Your task to perform on an android device: visit the assistant section in the google photos Image 0: 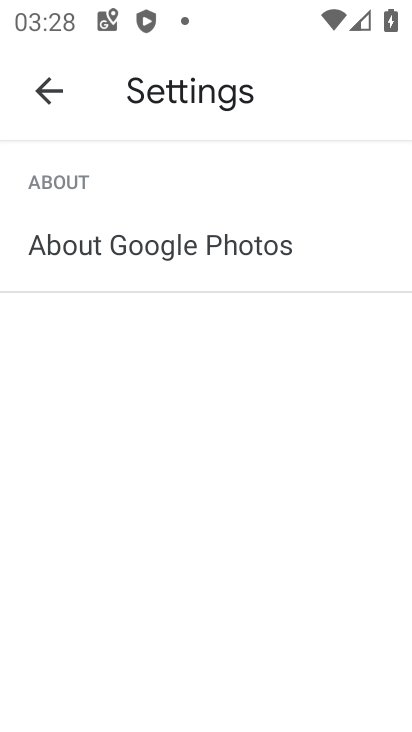
Step 0: press home button
Your task to perform on an android device: visit the assistant section in the google photos Image 1: 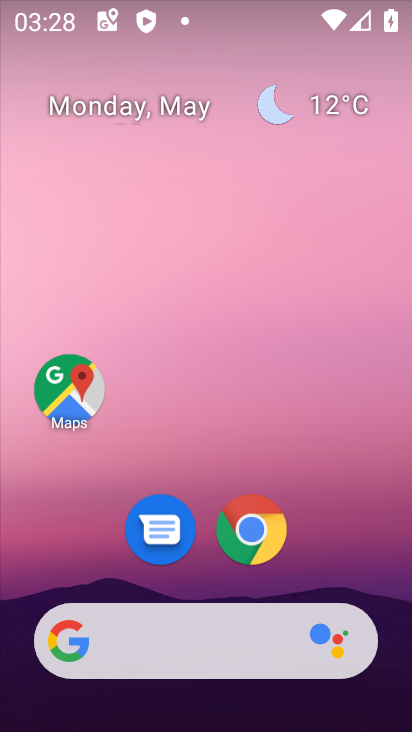
Step 1: drag from (358, 532) to (198, 0)
Your task to perform on an android device: visit the assistant section in the google photos Image 2: 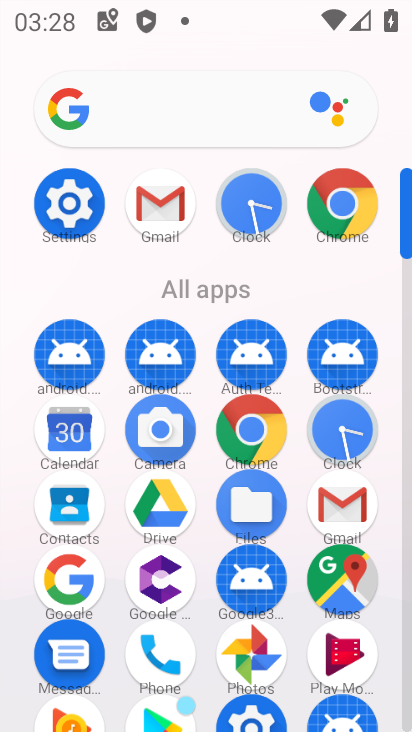
Step 2: click (251, 654)
Your task to perform on an android device: visit the assistant section in the google photos Image 3: 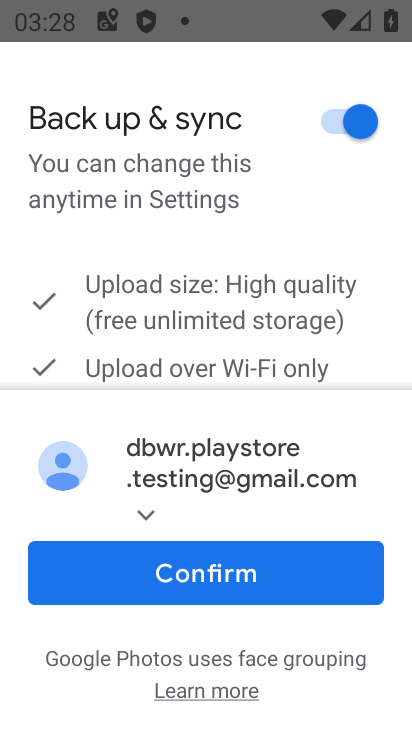
Step 3: click (243, 585)
Your task to perform on an android device: visit the assistant section in the google photos Image 4: 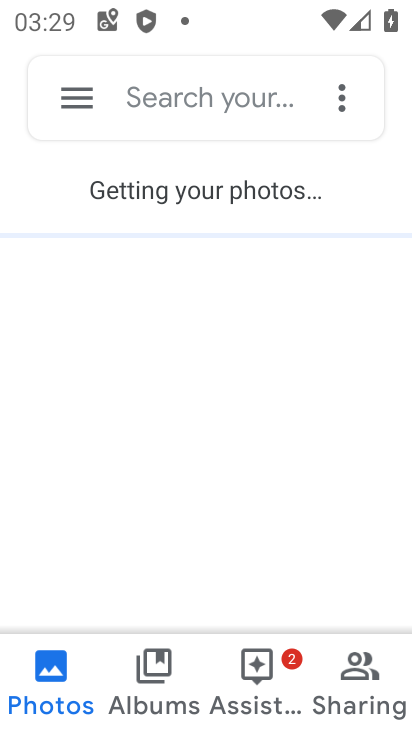
Step 4: click (247, 677)
Your task to perform on an android device: visit the assistant section in the google photos Image 5: 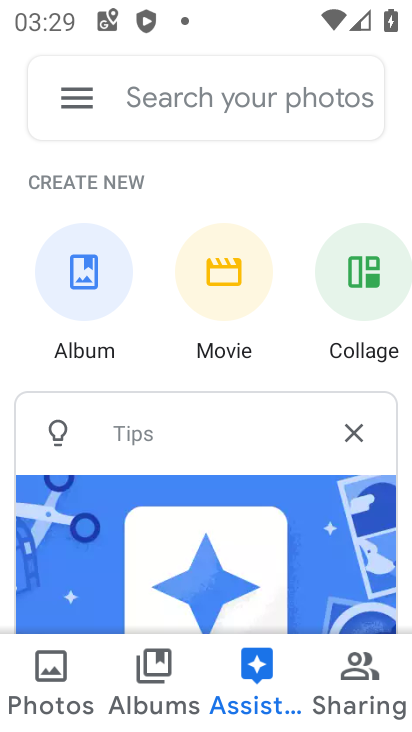
Step 5: task complete